Your task to perform on an android device: Open privacy settings Image 0: 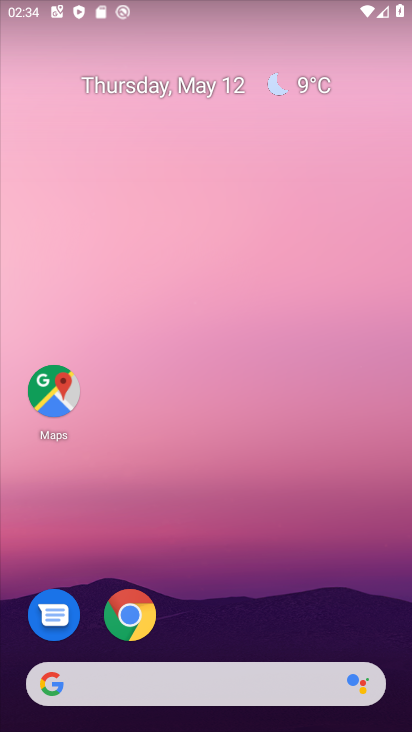
Step 0: drag from (212, 695) to (202, 161)
Your task to perform on an android device: Open privacy settings Image 1: 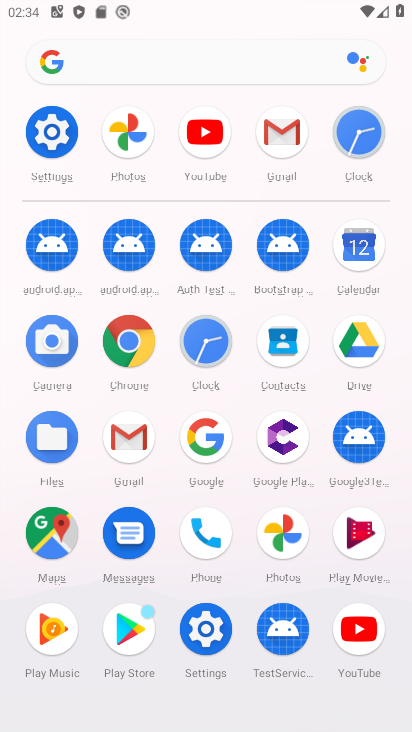
Step 1: click (64, 129)
Your task to perform on an android device: Open privacy settings Image 2: 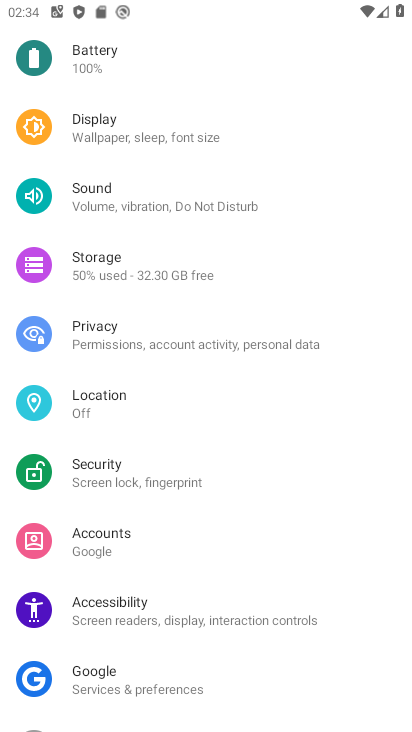
Step 2: click (90, 328)
Your task to perform on an android device: Open privacy settings Image 3: 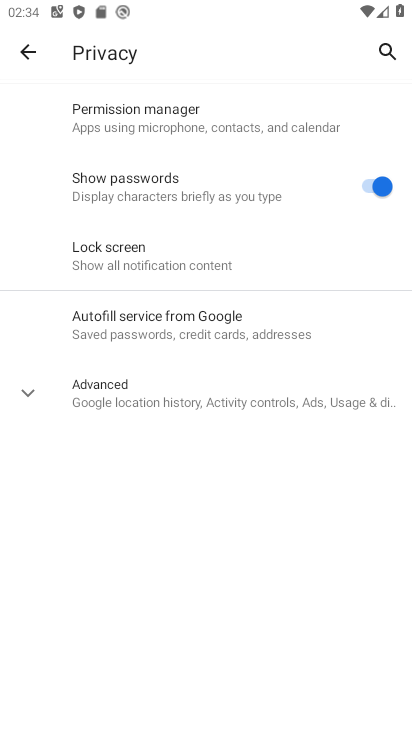
Step 3: task complete